Your task to perform on an android device: choose inbox layout in the gmail app Image 0: 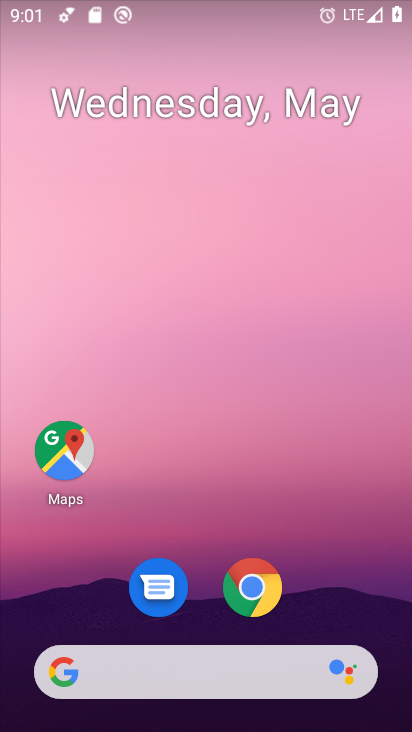
Step 0: drag from (205, 602) to (232, 62)
Your task to perform on an android device: choose inbox layout in the gmail app Image 1: 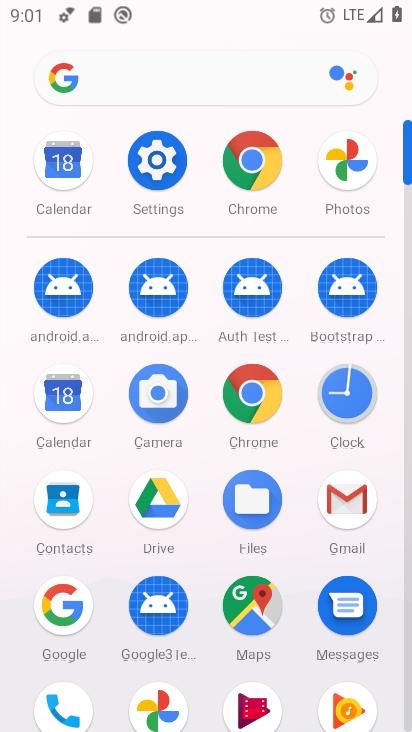
Step 1: click (378, 503)
Your task to perform on an android device: choose inbox layout in the gmail app Image 2: 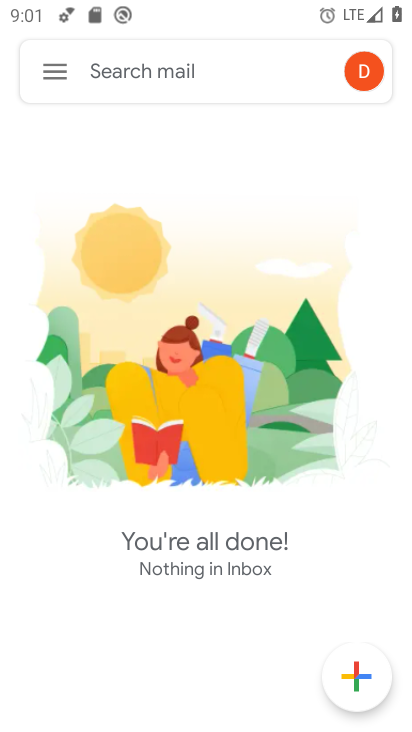
Step 2: click (57, 65)
Your task to perform on an android device: choose inbox layout in the gmail app Image 3: 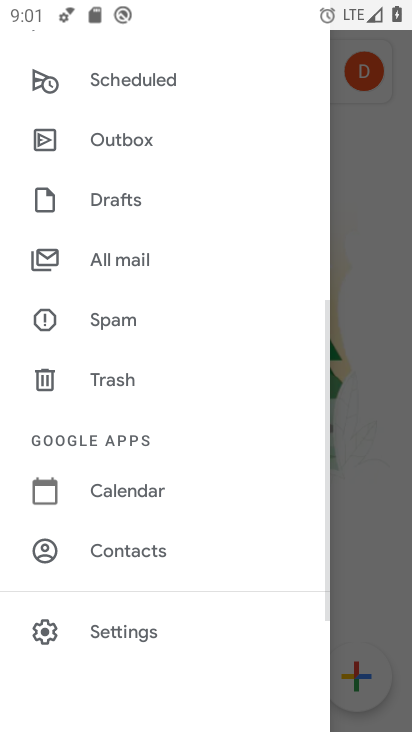
Step 3: click (110, 626)
Your task to perform on an android device: choose inbox layout in the gmail app Image 4: 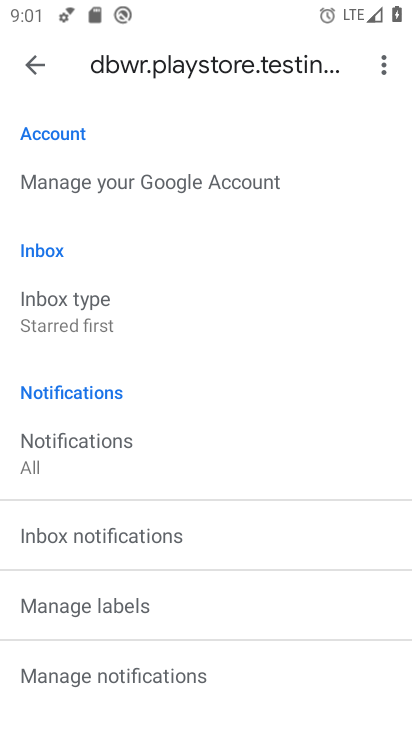
Step 4: click (79, 319)
Your task to perform on an android device: choose inbox layout in the gmail app Image 5: 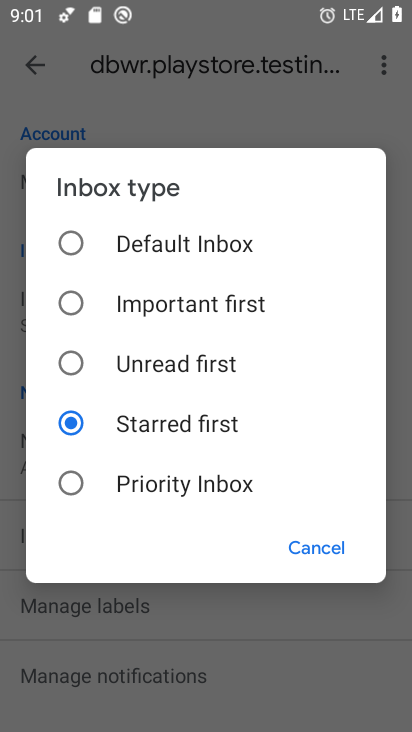
Step 5: click (134, 248)
Your task to perform on an android device: choose inbox layout in the gmail app Image 6: 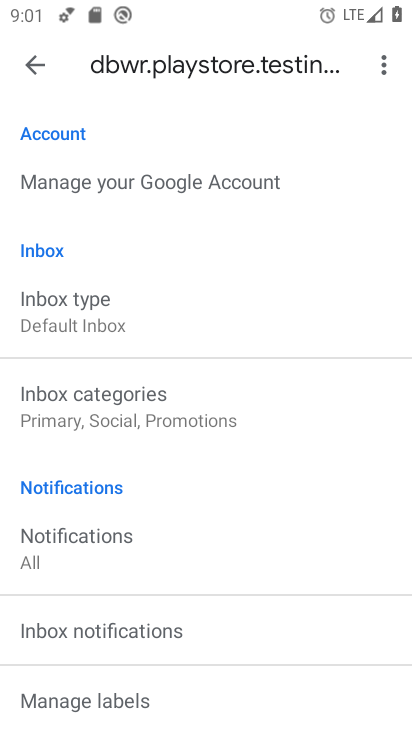
Step 6: task complete